Your task to perform on an android device: Go to eBay Image 0: 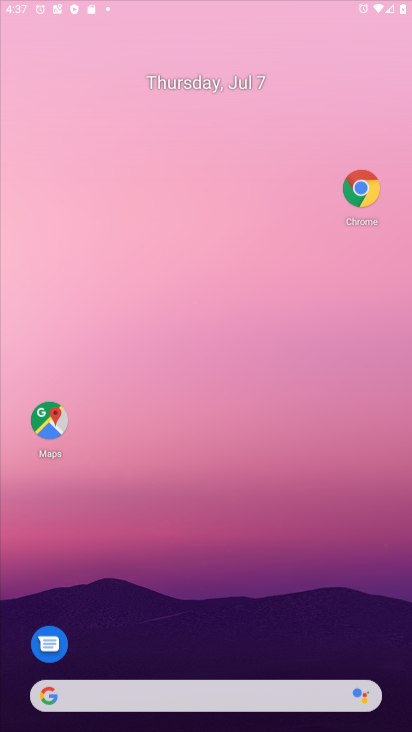
Step 0: press home button
Your task to perform on an android device: Go to eBay Image 1: 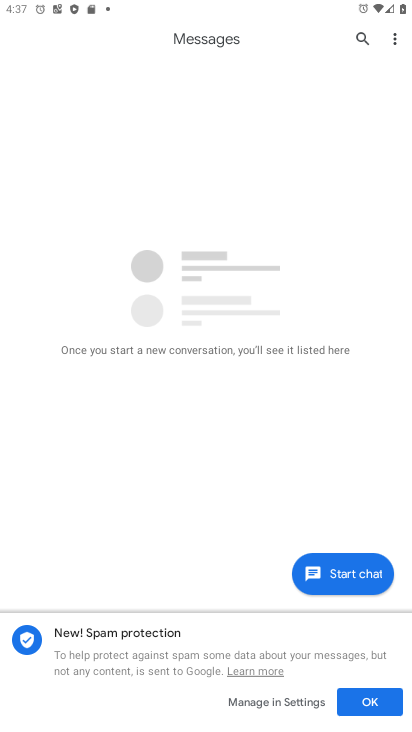
Step 1: drag from (229, 438) to (232, 114)
Your task to perform on an android device: Go to eBay Image 2: 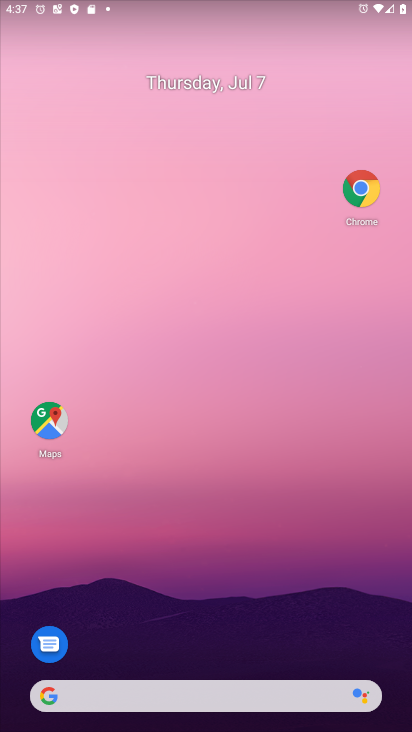
Step 2: drag from (236, 685) to (371, 164)
Your task to perform on an android device: Go to eBay Image 3: 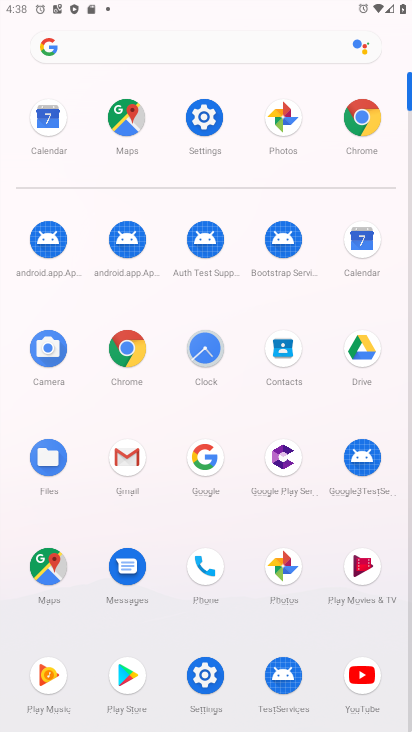
Step 3: click (362, 138)
Your task to perform on an android device: Go to eBay Image 4: 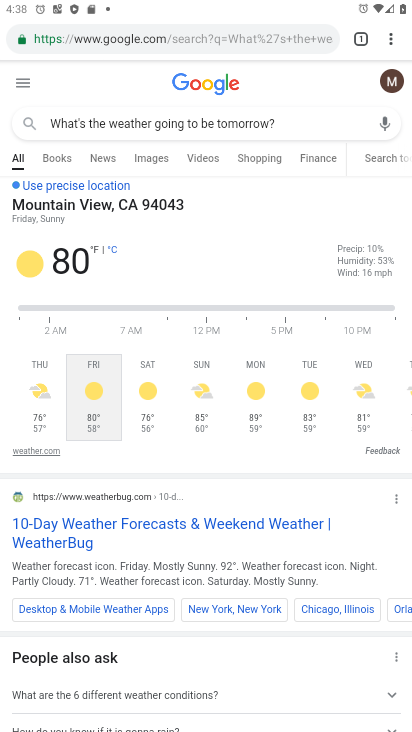
Step 4: click (241, 40)
Your task to perform on an android device: Go to eBay Image 5: 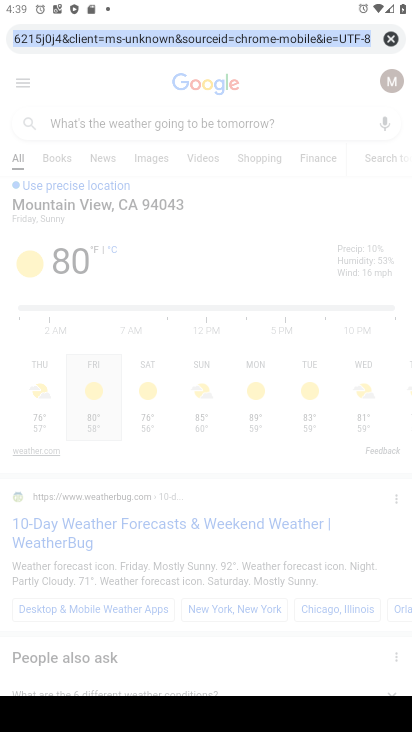
Step 5: type "eBay"
Your task to perform on an android device: Go to eBay Image 6: 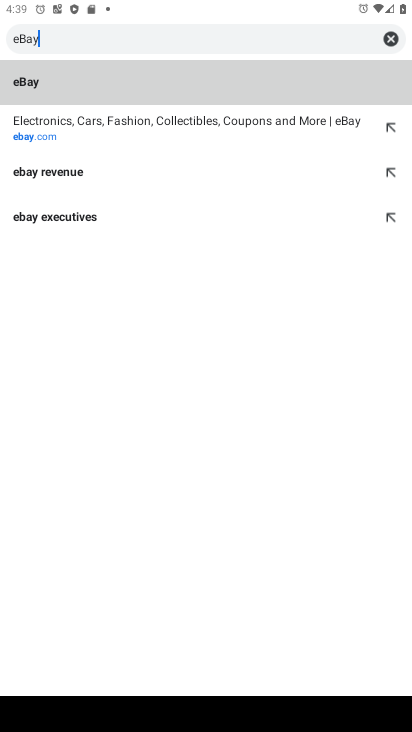
Step 6: type ""
Your task to perform on an android device: Go to eBay Image 7: 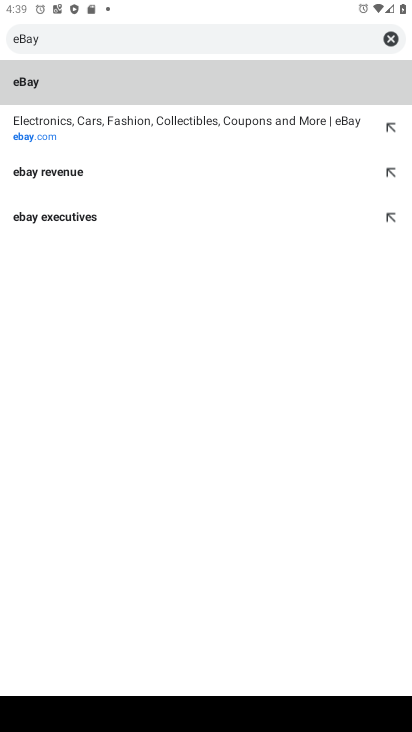
Step 7: click (49, 134)
Your task to perform on an android device: Go to eBay Image 8: 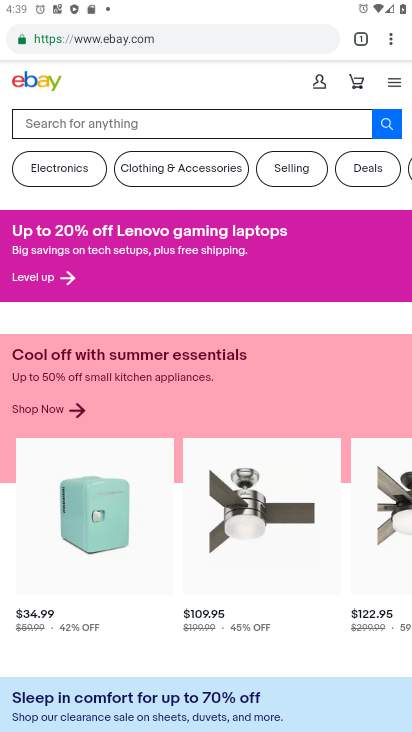
Step 8: task complete